Your task to perform on an android device: search for starred emails in the gmail app Image 0: 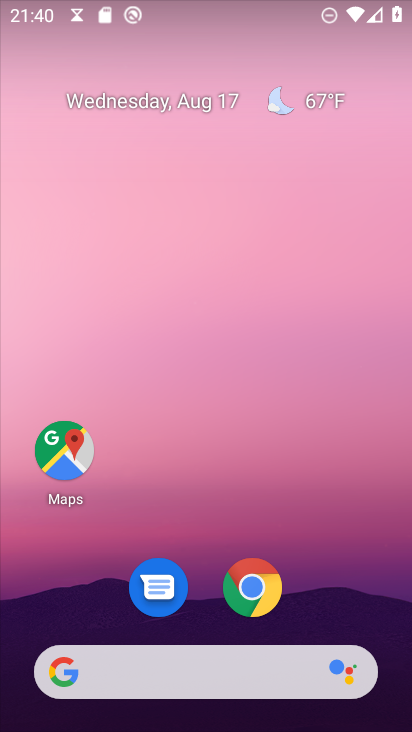
Step 0: drag from (18, 675) to (249, 135)
Your task to perform on an android device: search for starred emails in the gmail app Image 1: 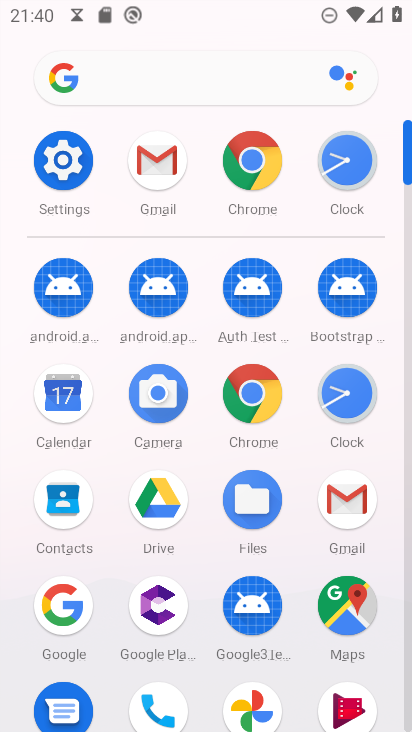
Step 1: click (172, 169)
Your task to perform on an android device: search for starred emails in the gmail app Image 2: 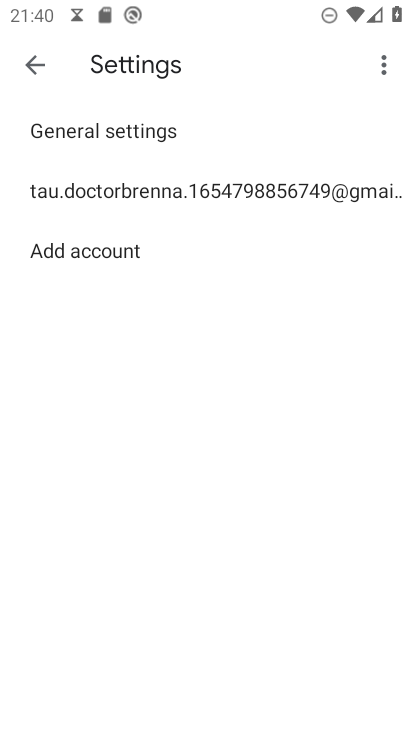
Step 2: press back button
Your task to perform on an android device: search for starred emails in the gmail app Image 3: 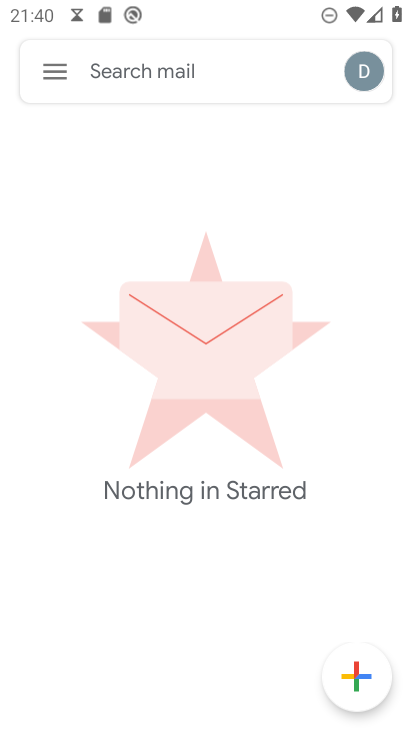
Step 3: click (52, 73)
Your task to perform on an android device: search for starred emails in the gmail app Image 4: 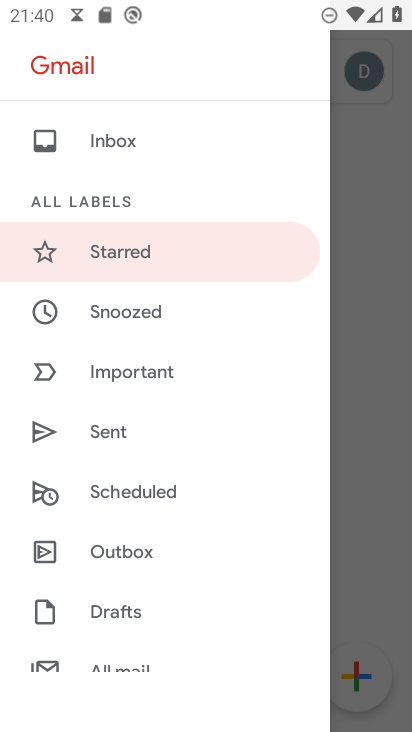
Step 4: click (157, 250)
Your task to perform on an android device: search for starred emails in the gmail app Image 5: 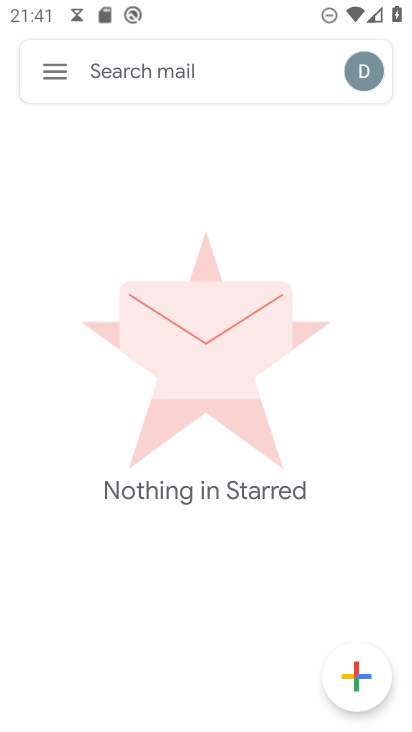
Step 5: task complete